Your task to perform on an android device: Go to display settings Image 0: 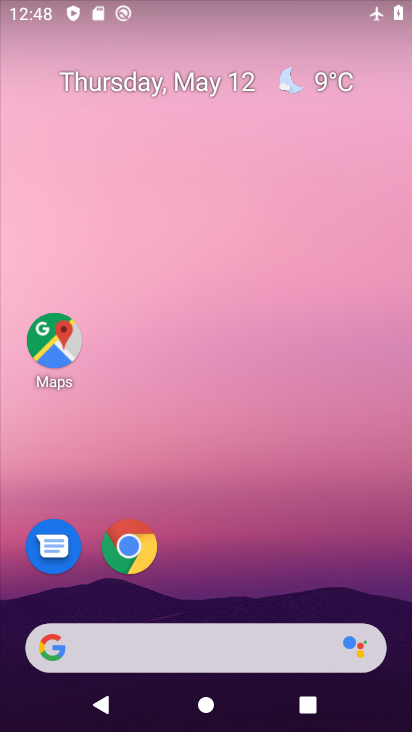
Step 0: drag from (215, 666) to (255, 42)
Your task to perform on an android device: Go to display settings Image 1: 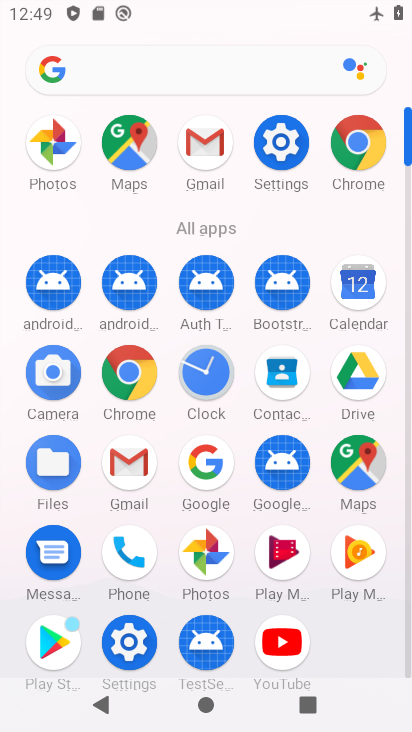
Step 1: click (284, 122)
Your task to perform on an android device: Go to display settings Image 2: 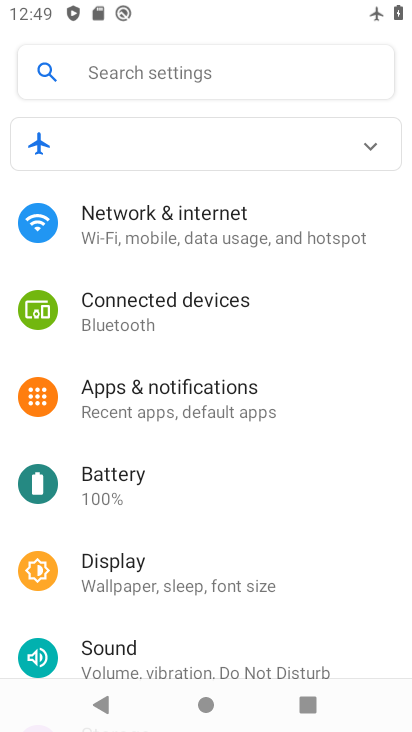
Step 2: click (122, 563)
Your task to perform on an android device: Go to display settings Image 3: 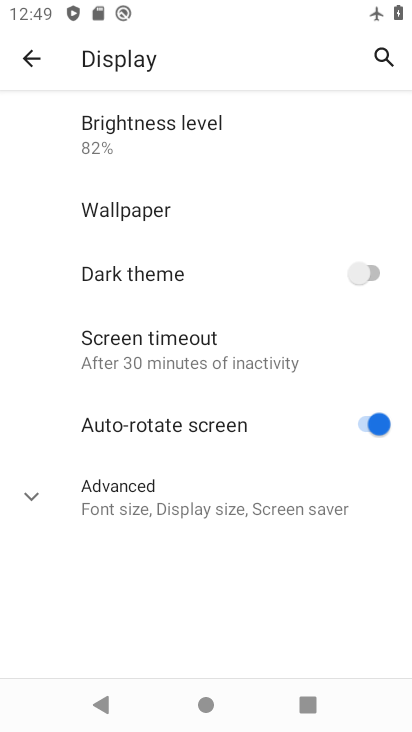
Step 3: task complete